Your task to perform on an android device: How much does the Vizio TV cost? Image 0: 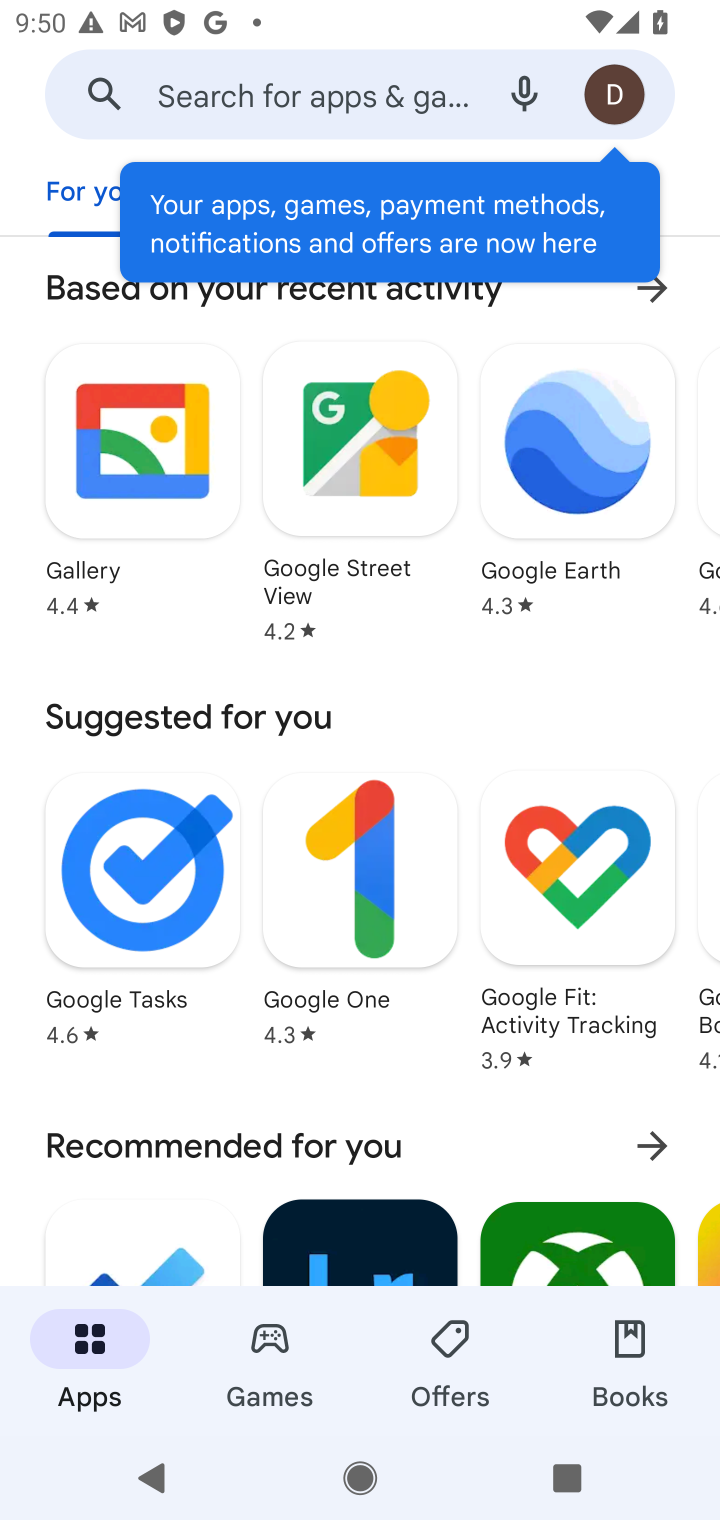
Step 0: press home button
Your task to perform on an android device: How much does the Vizio TV cost? Image 1: 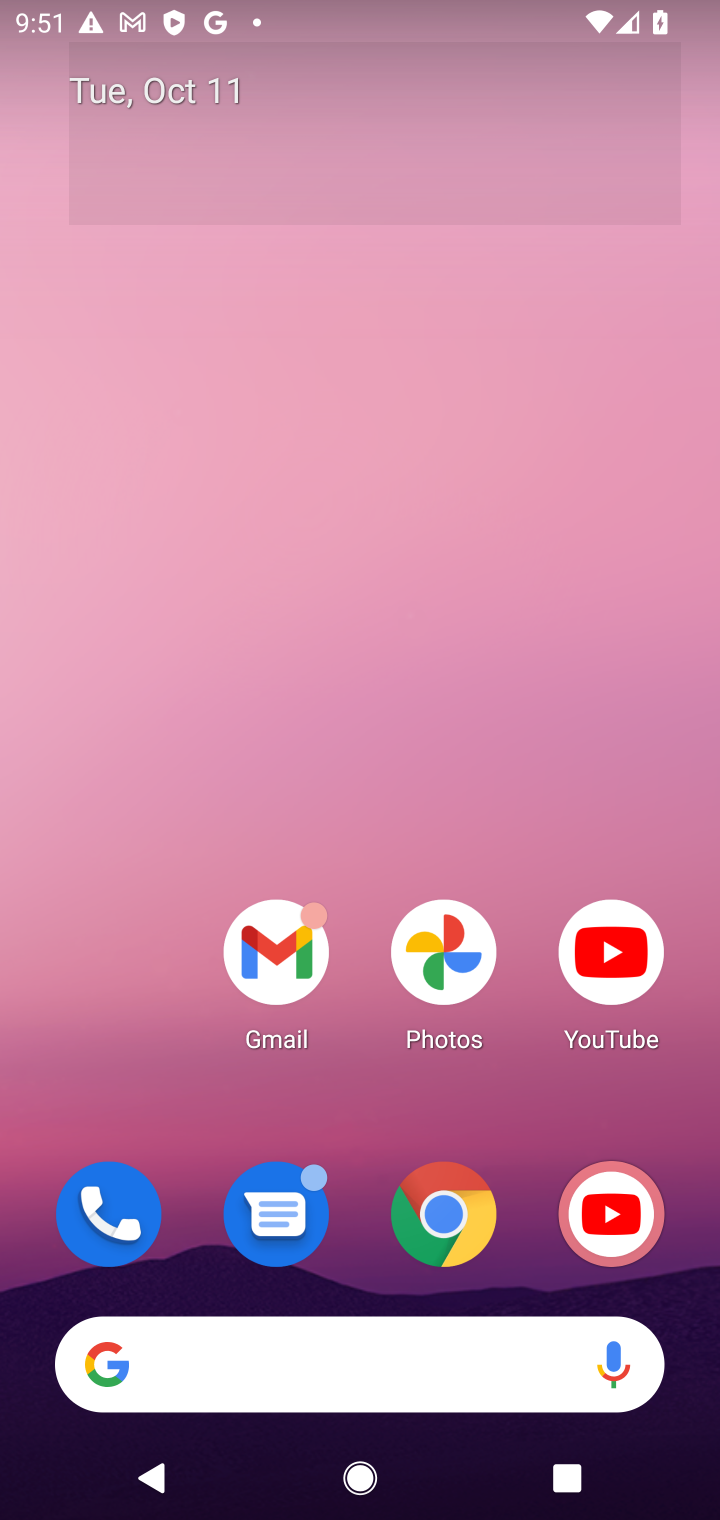
Step 1: drag from (481, 782) to (489, 4)
Your task to perform on an android device: How much does the Vizio TV cost? Image 2: 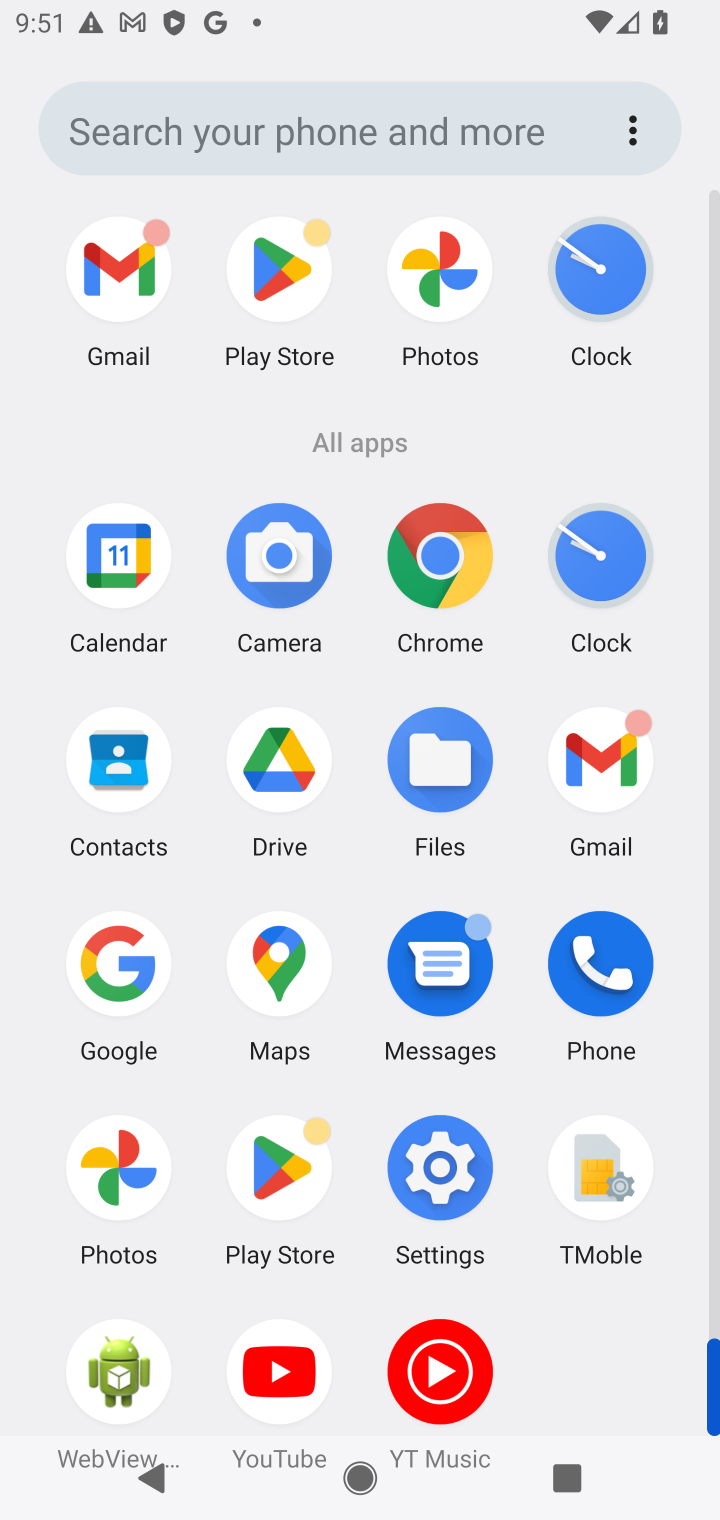
Step 2: click (436, 566)
Your task to perform on an android device: How much does the Vizio TV cost? Image 3: 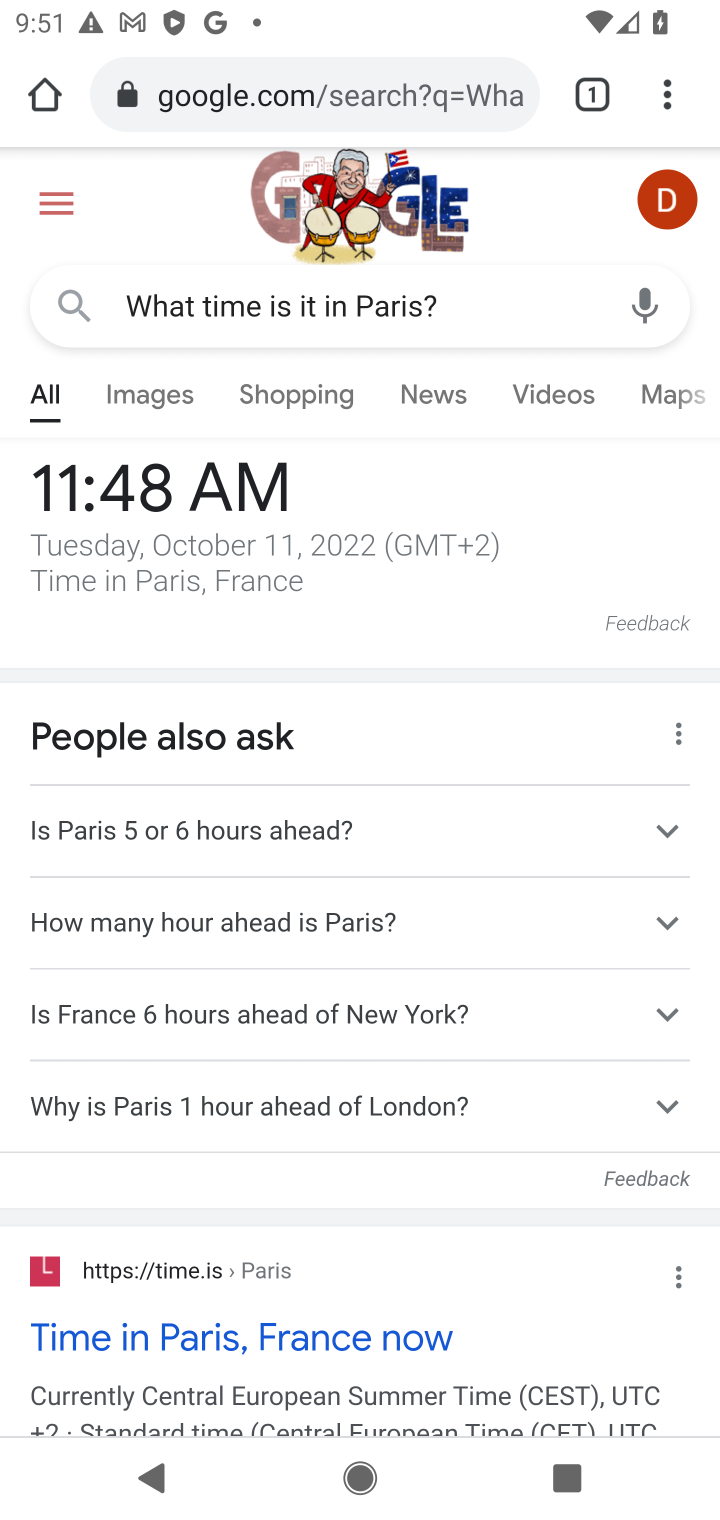
Step 3: click (294, 99)
Your task to perform on an android device: How much does the Vizio TV cost? Image 4: 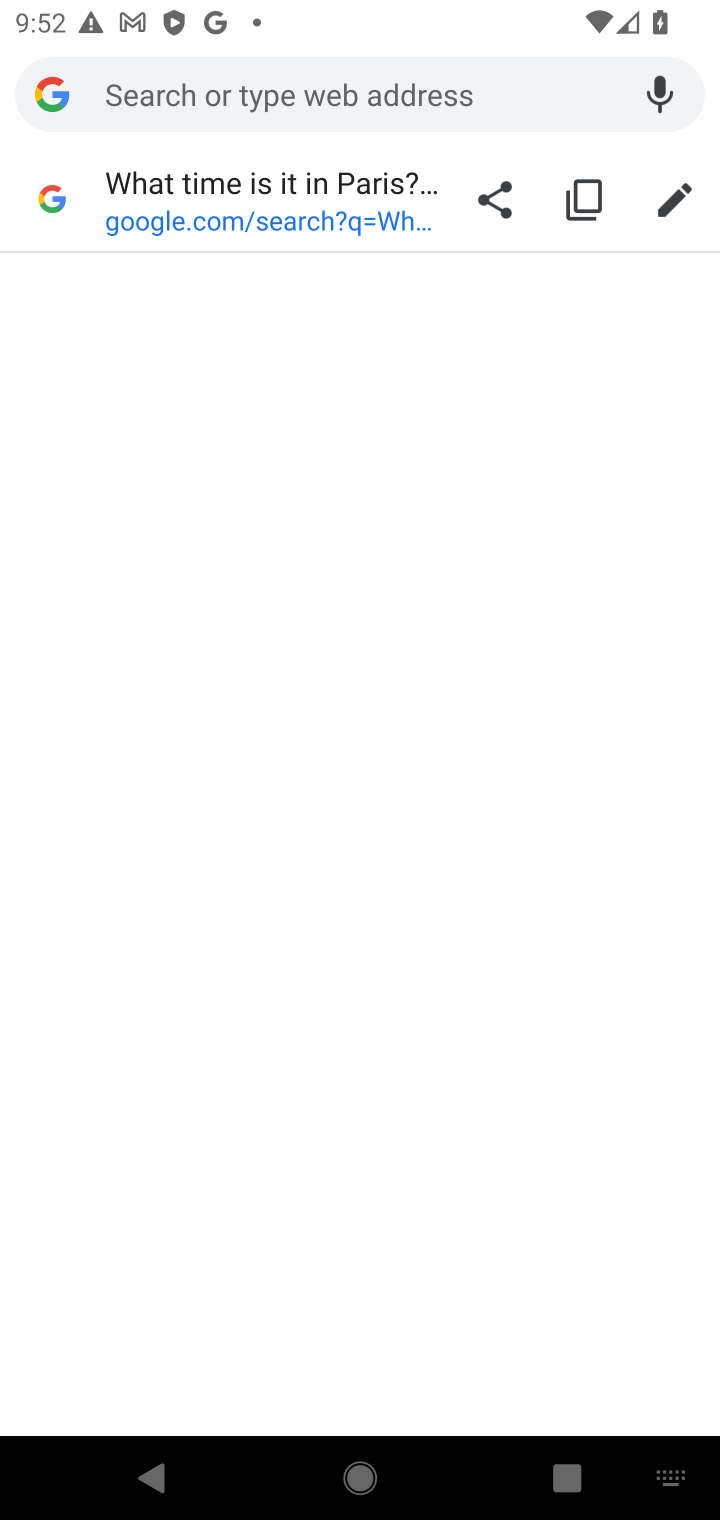
Step 4: type "How much does the Vizio TV cost?"
Your task to perform on an android device: How much does the Vizio TV cost? Image 5: 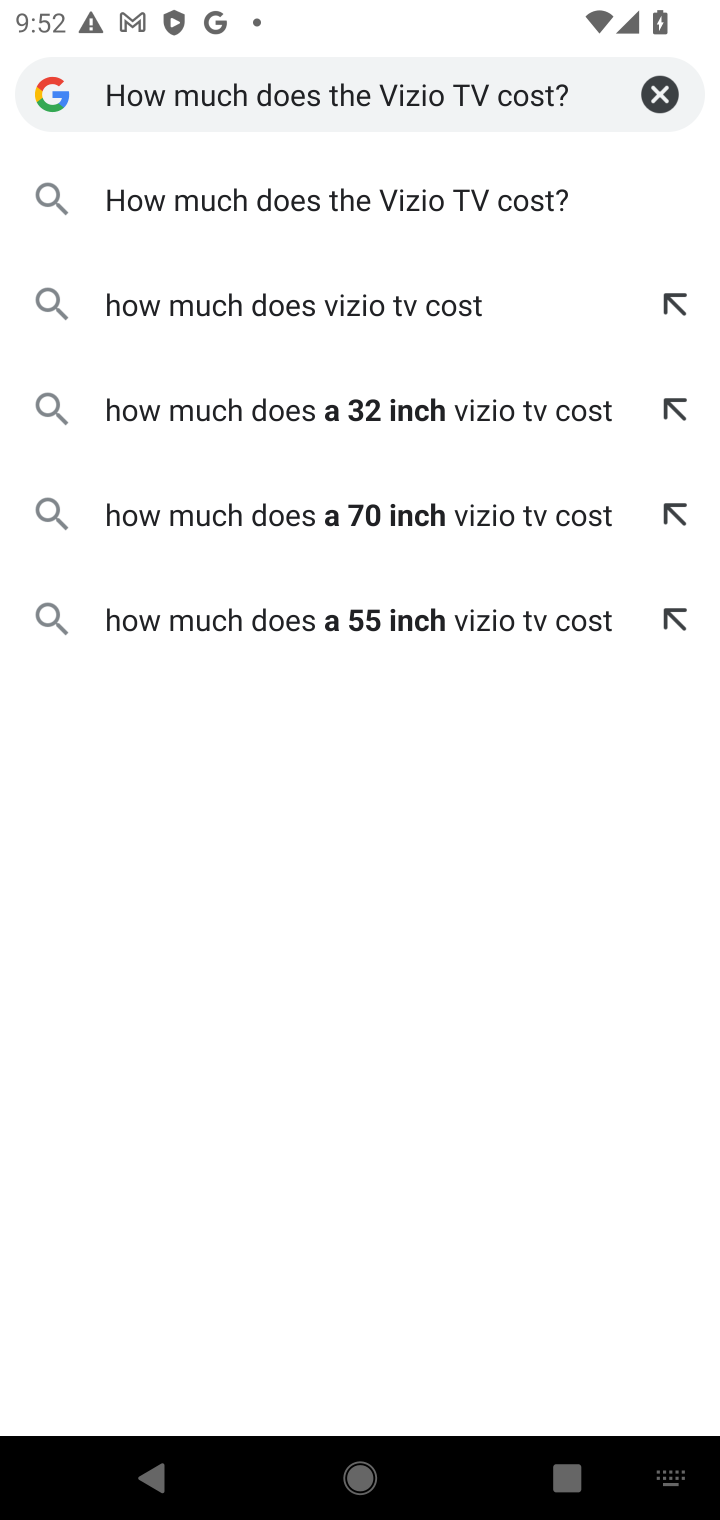
Step 5: press enter
Your task to perform on an android device: How much does the Vizio TV cost? Image 6: 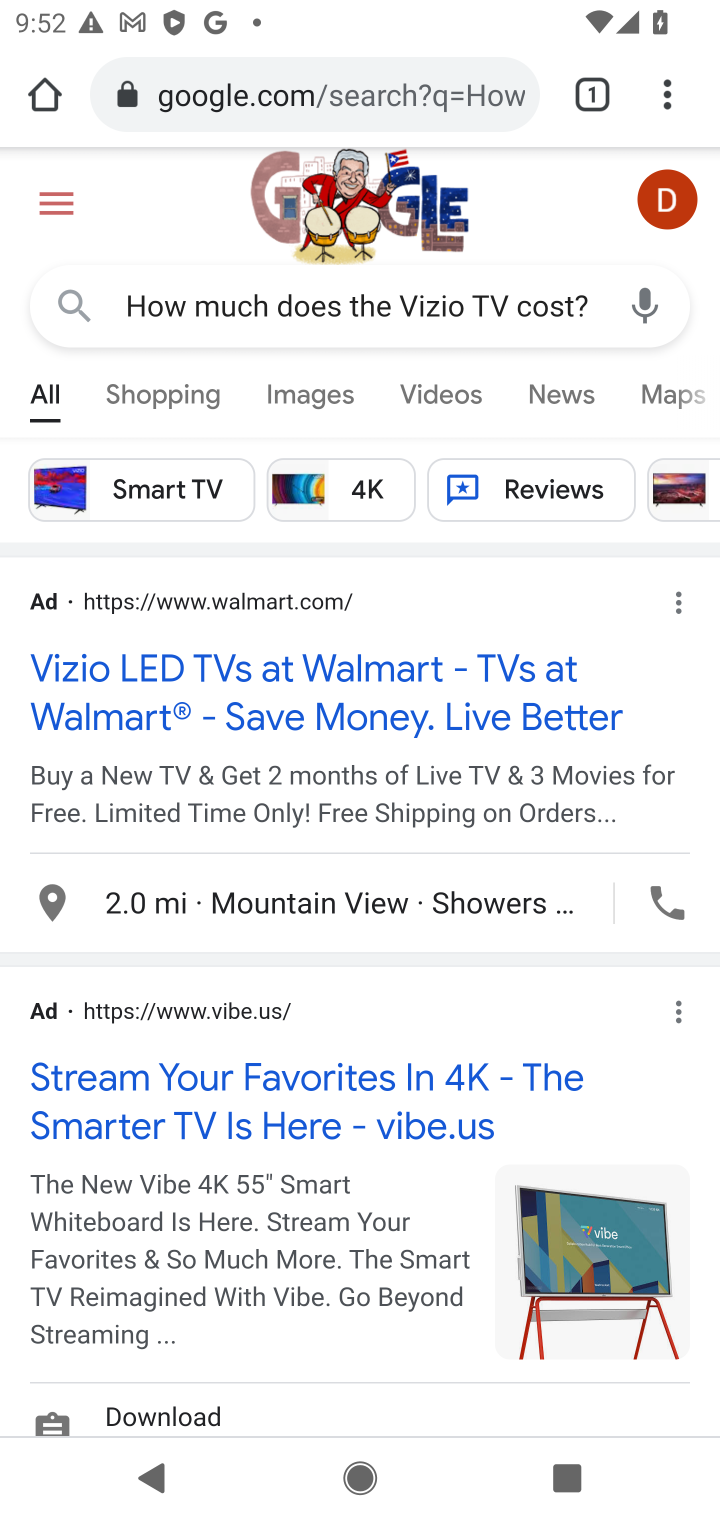
Step 6: task complete